Your task to perform on an android device: Open privacy settings Image 0: 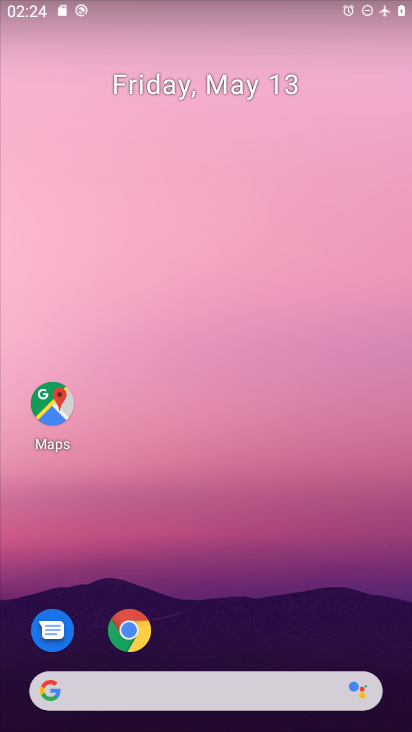
Step 0: drag from (238, 703) to (279, 282)
Your task to perform on an android device: Open privacy settings Image 1: 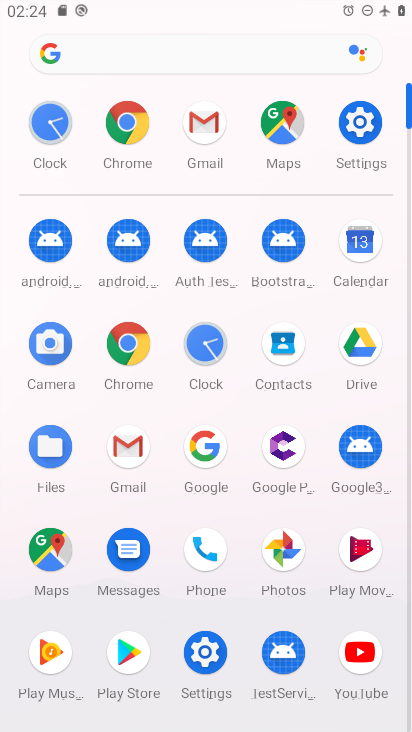
Step 1: click (211, 659)
Your task to perform on an android device: Open privacy settings Image 2: 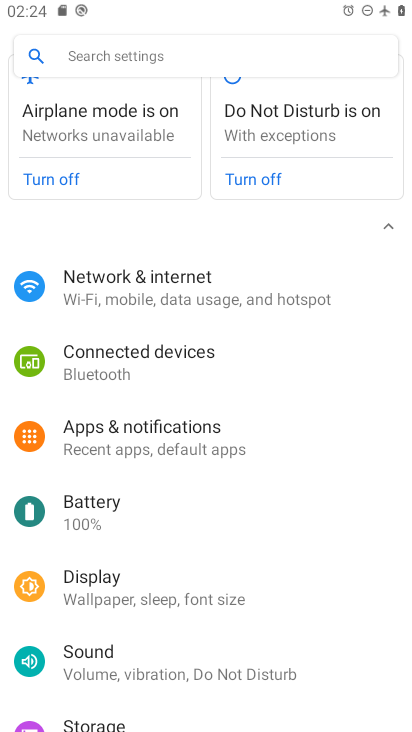
Step 2: drag from (198, 481) to (274, 233)
Your task to perform on an android device: Open privacy settings Image 3: 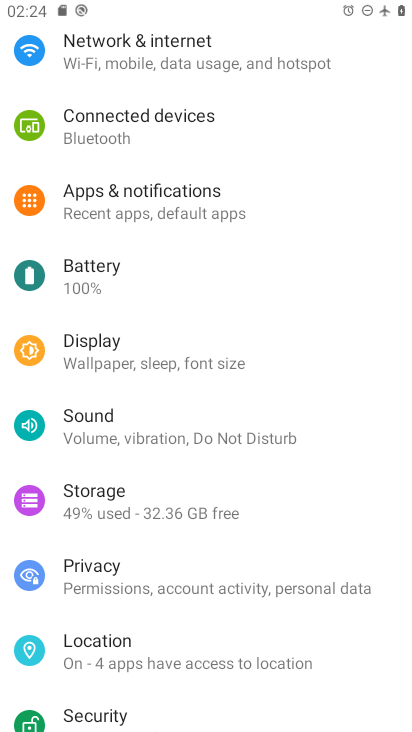
Step 3: click (163, 568)
Your task to perform on an android device: Open privacy settings Image 4: 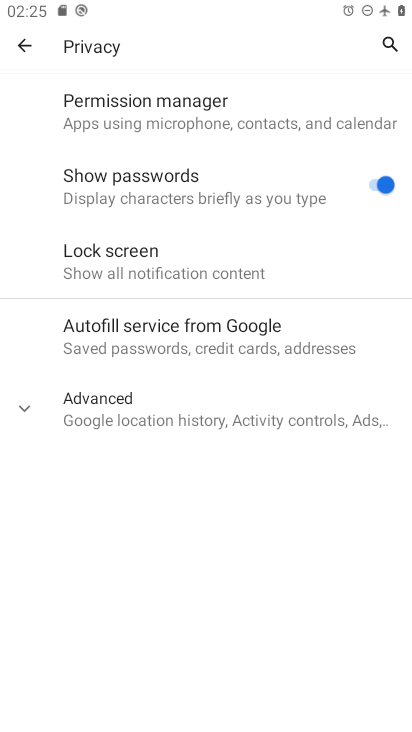
Step 4: task complete